Your task to perform on an android device: set default search engine in the chrome app Image 0: 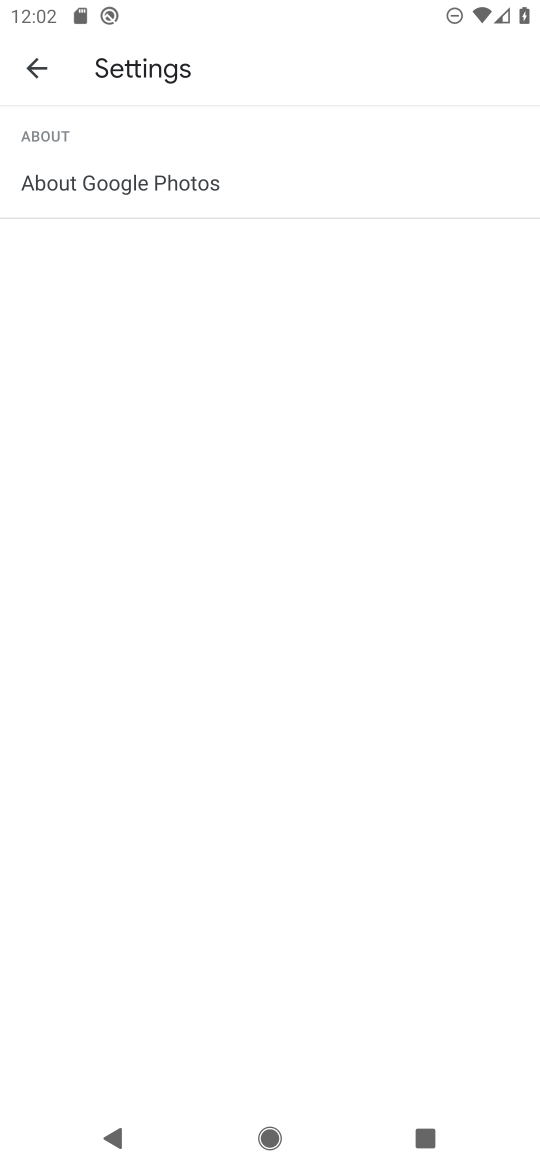
Step 0: press home button
Your task to perform on an android device: set default search engine in the chrome app Image 1: 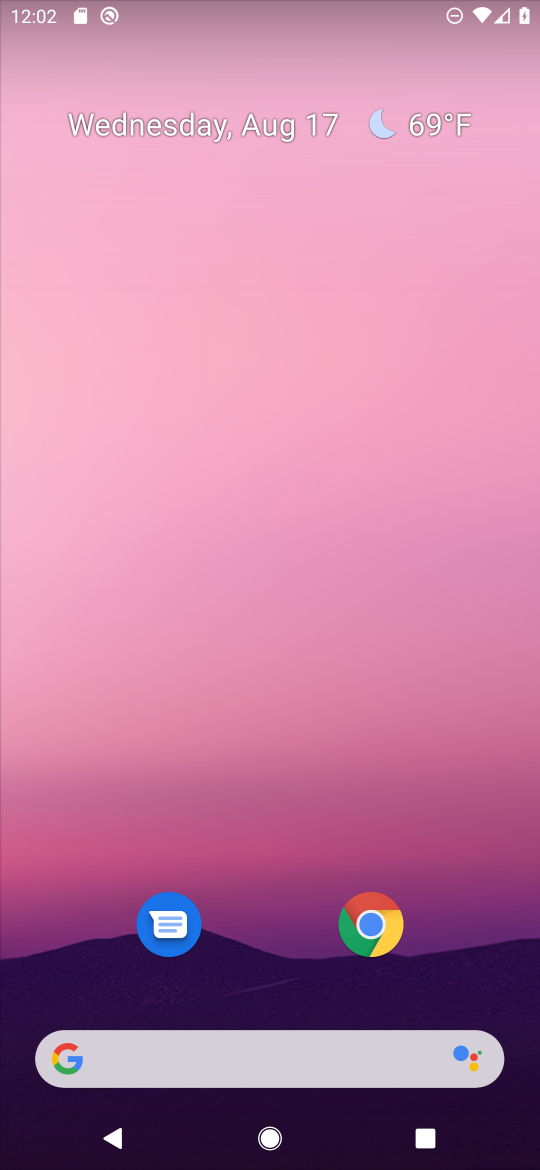
Step 1: click (369, 926)
Your task to perform on an android device: set default search engine in the chrome app Image 2: 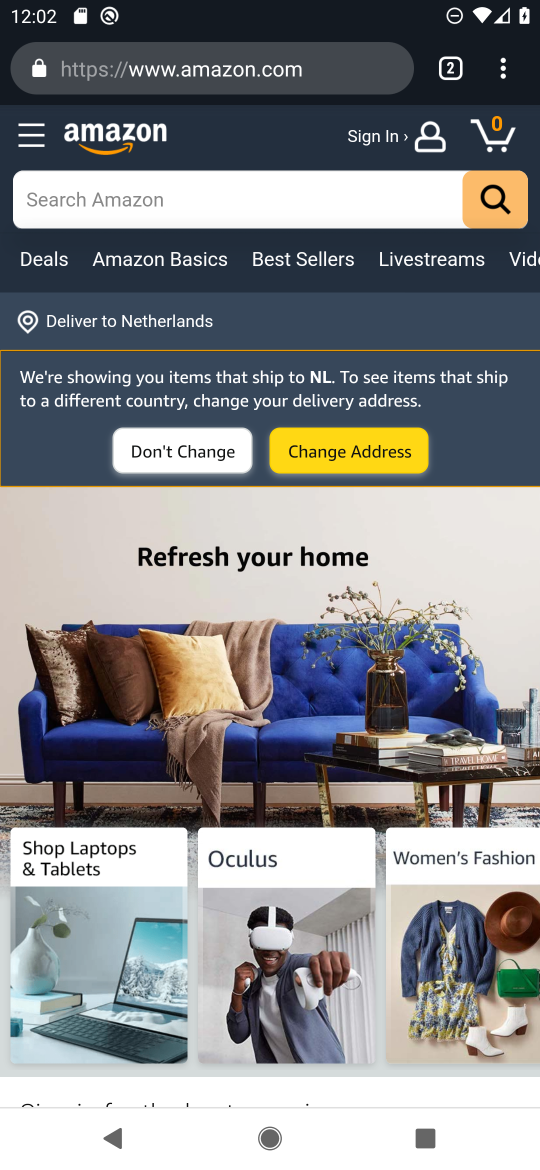
Step 2: click (514, 71)
Your task to perform on an android device: set default search engine in the chrome app Image 3: 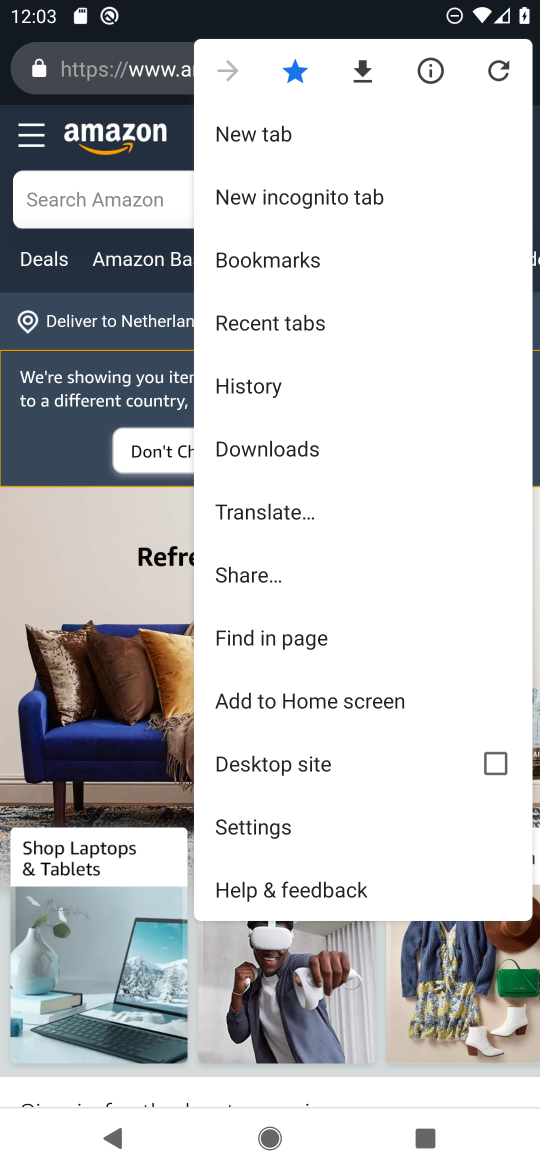
Step 3: click (259, 825)
Your task to perform on an android device: set default search engine in the chrome app Image 4: 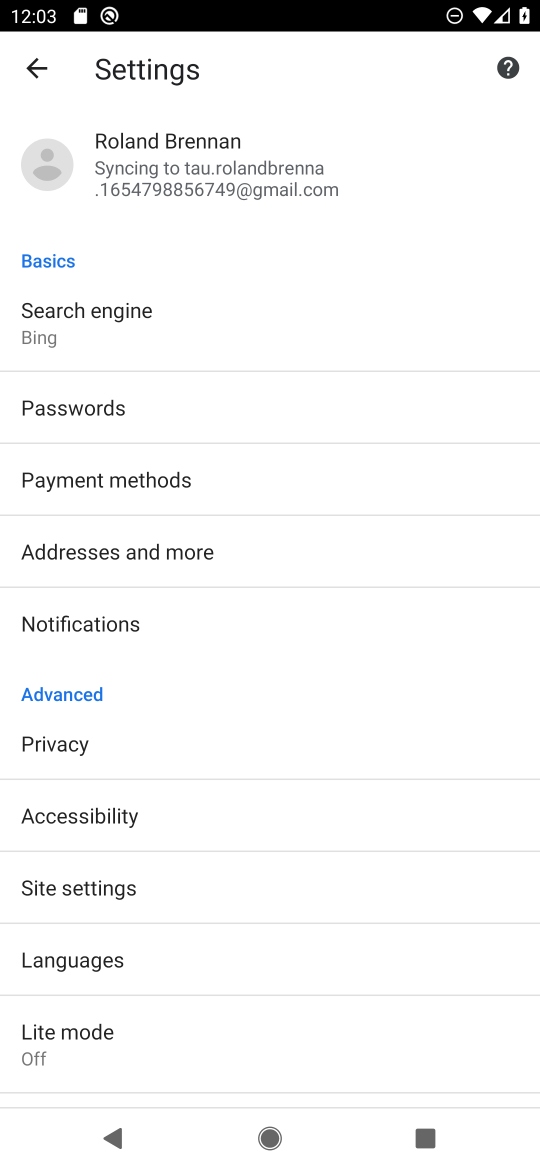
Step 4: click (129, 336)
Your task to perform on an android device: set default search engine in the chrome app Image 5: 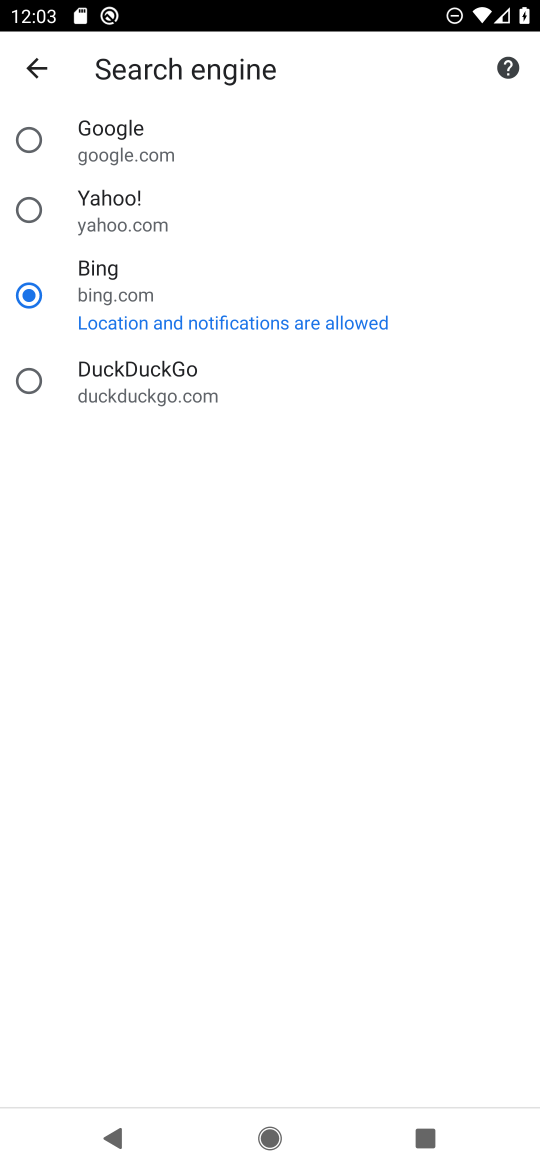
Step 5: click (157, 233)
Your task to perform on an android device: set default search engine in the chrome app Image 6: 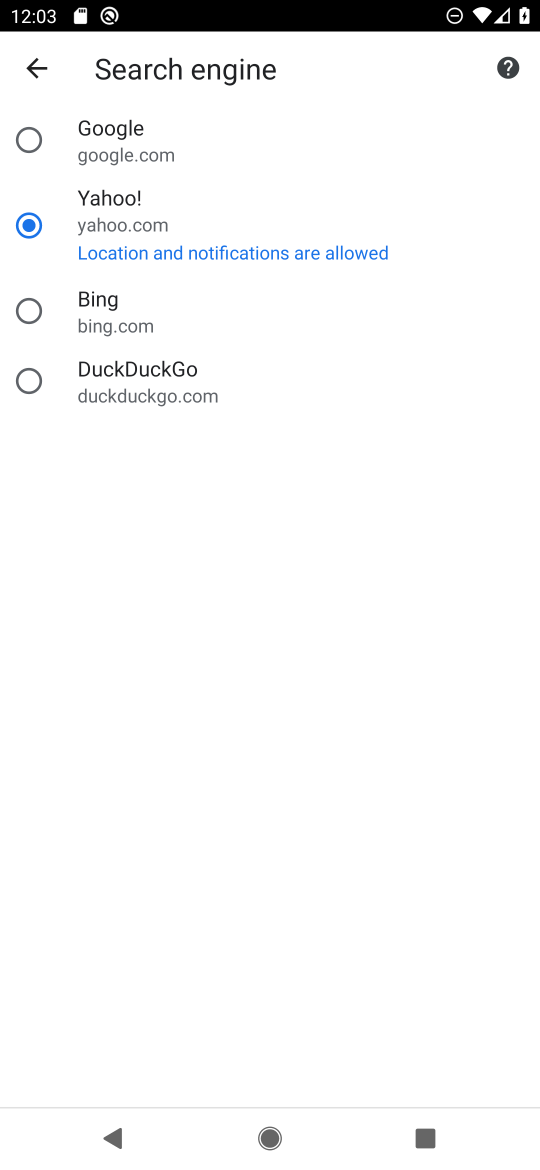
Step 6: task complete